Your task to perform on an android device: turn on the 12-hour format for clock Image 0: 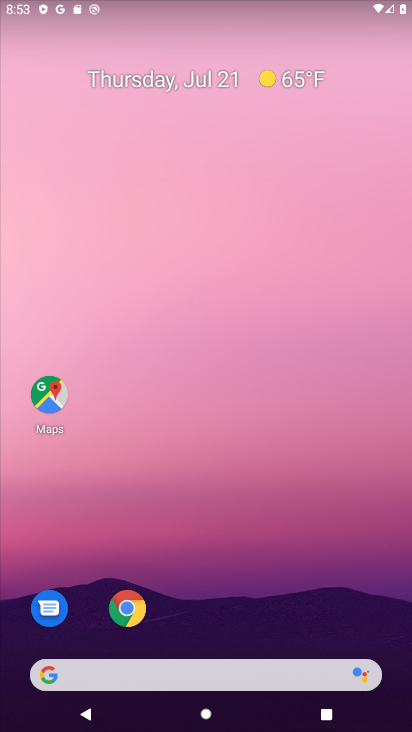
Step 0: drag from (233, 525) to (257, 211)
Your task to perform on an android device: turn on the 12-hour format for clock Image 1: 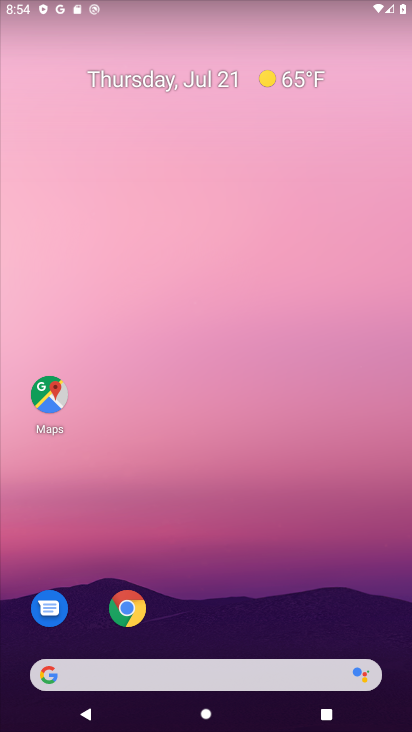
Step 1: drag from (205, 573) to (131, 220)
Your task to perform on an android device: turn on the 12-hour format for clock Image 2: 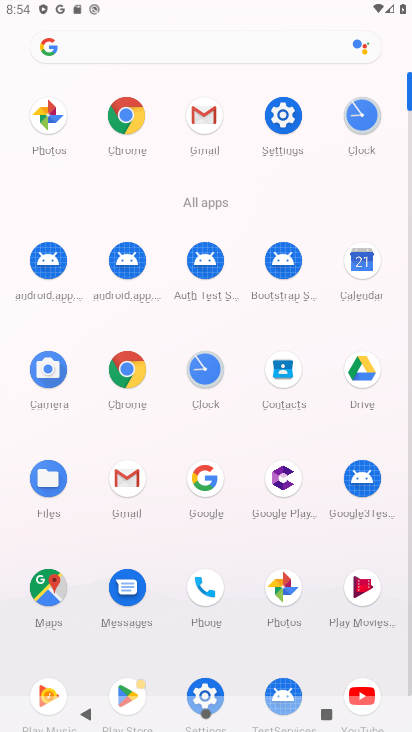
Step 2: click (358, 114)
Your task to perform on an android device: turn on the 12-hour format for clock Image 3: 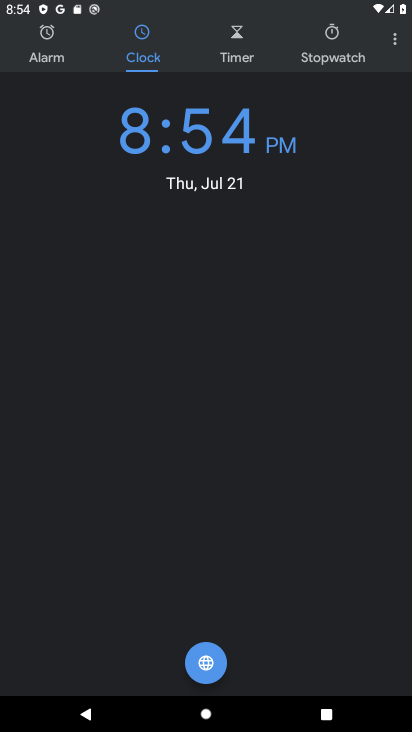
Step 3: click (396, 43)
Your task to perform on an android device: turn on the 12-hour format for clock Image 4: 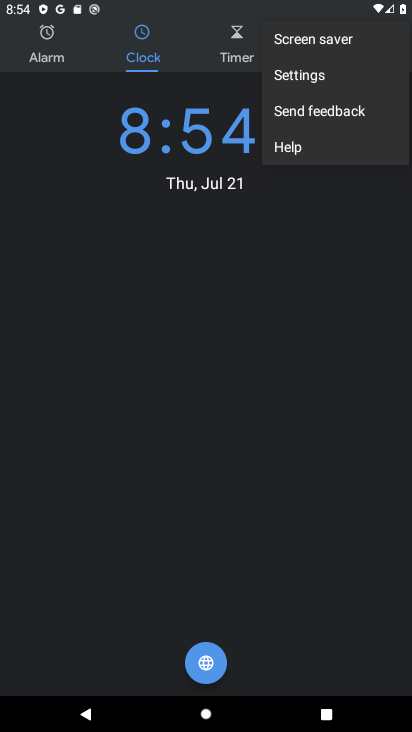
Step 4: click (318, 79)
Your task to perform on an android device: turn on the 12-hour format for clock Image 5: 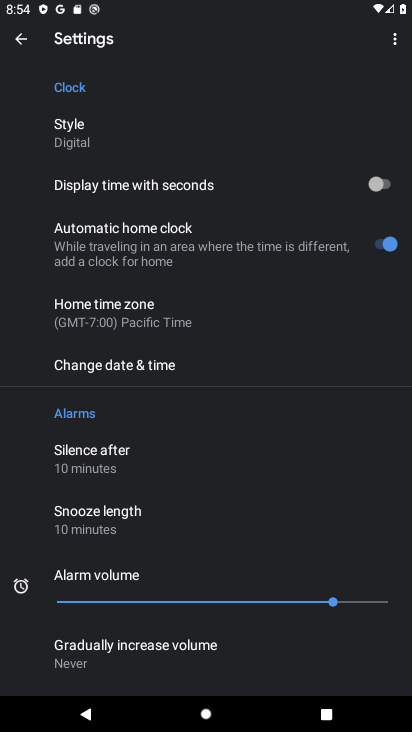
Step 5: drag from (241, 476) to (233, 329)
Your task to perform on an android device: turn on the 12-hour format for clock Image 6: 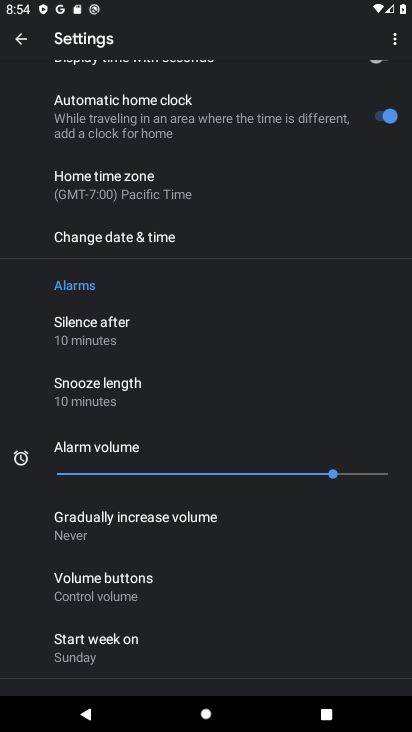
Step 6: drag from (261, 555) to (221, 408)
Your task to perform on an android device: turn on the 12-hour format for clock Image 7: 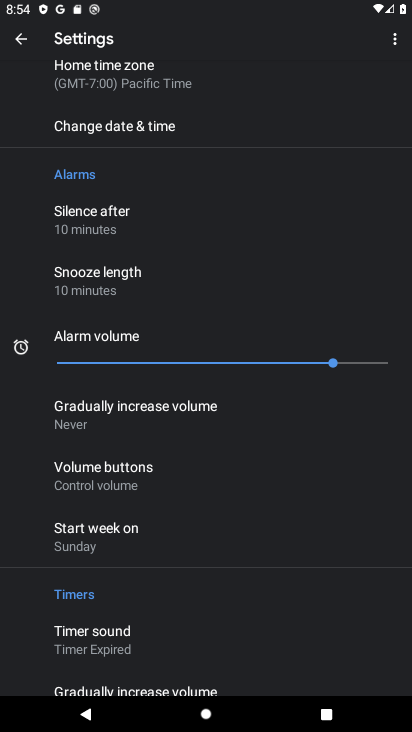
Step 7: drag from (247, 539) to (224, 414)
Your task to perform on an android device: turn on the 12-hour format for clock Image 8: 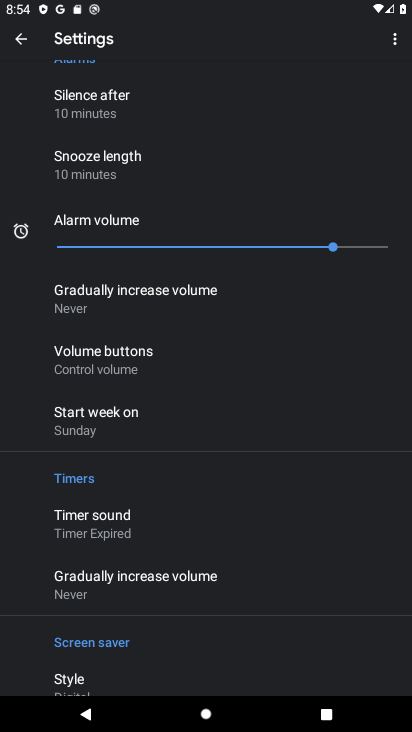
Step 8: drag from (288, 542) to (186, 214)
Your task to perform on an android device: turn on the 12-hour format for clock Image 9: 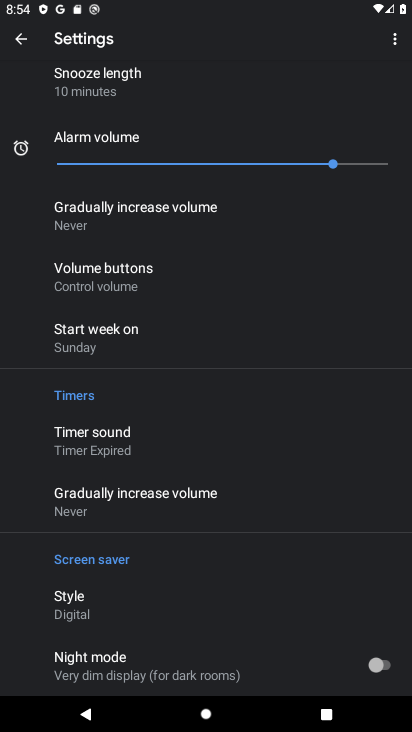
Step 9: drag from (223, 493) to (244, 252)
Your task to perform on an android device: turn on the 12-hour format for clock Image 10: 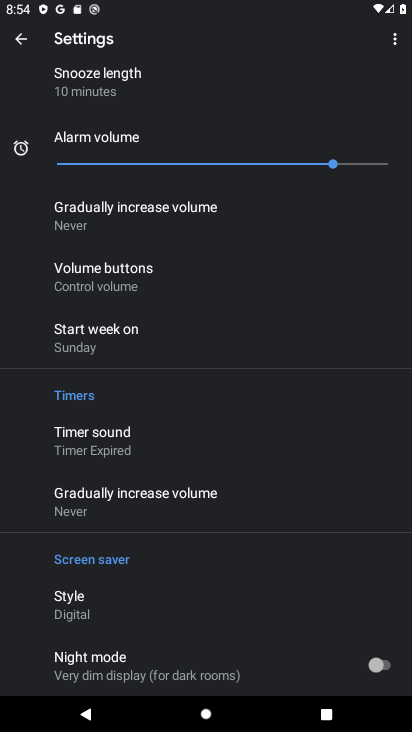
Step 10: drag from (244, 248) to (410, 592)
Your task to perform on an android device: turn on the 12-hour format for clock Image 11: 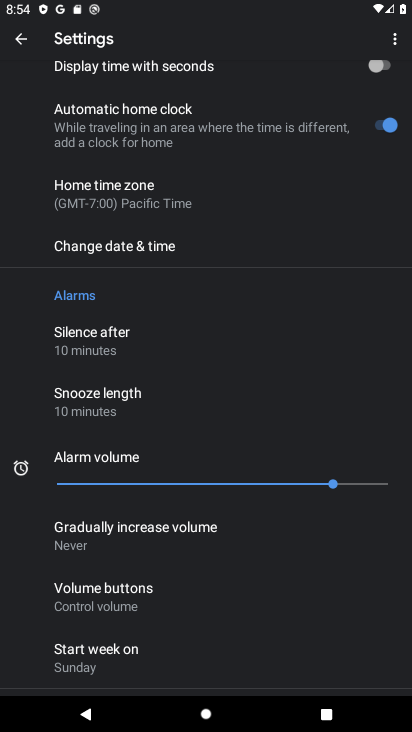
Step 11: drag from (207, 165) to (227, 283)
Your task to perform on an android device: turn on the 12-hour format for clock Image 12: 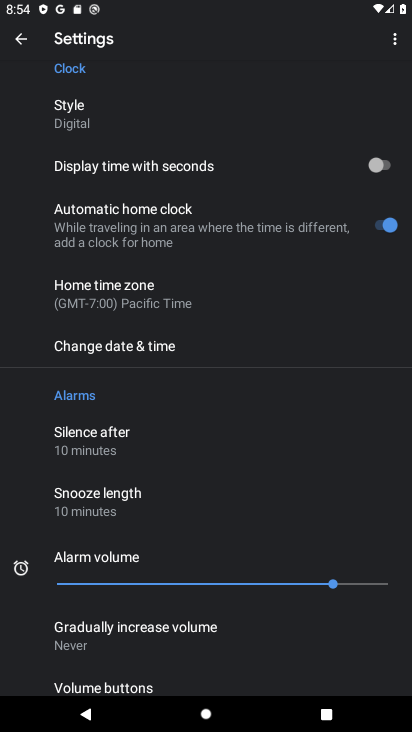
Step 12: drag from (239, 207) to (255, 289)
Your task to perform on an android device: turn on the 12-hour format for clock Image 13: 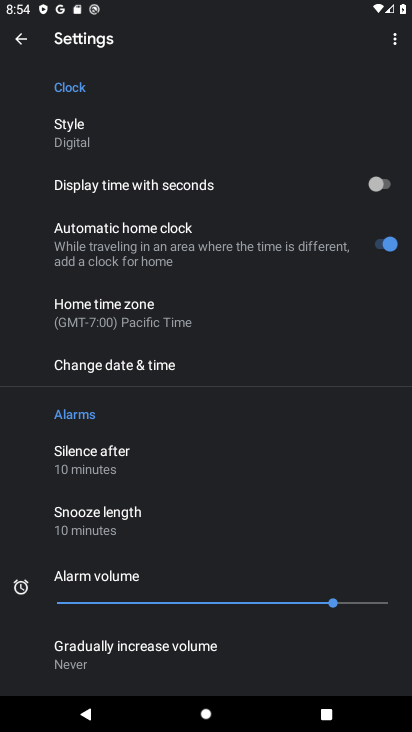
Step 13: click (395, 36)
Your task to perform on an android device: turn on the 12-hour format for clock Image 14: 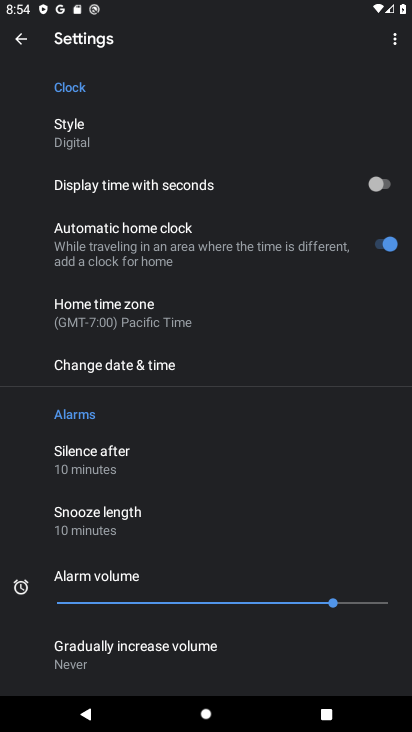
Step 14: click (396, 42)
Your task to perform on an android device: turn on the 12-hour format for clock Image 15: 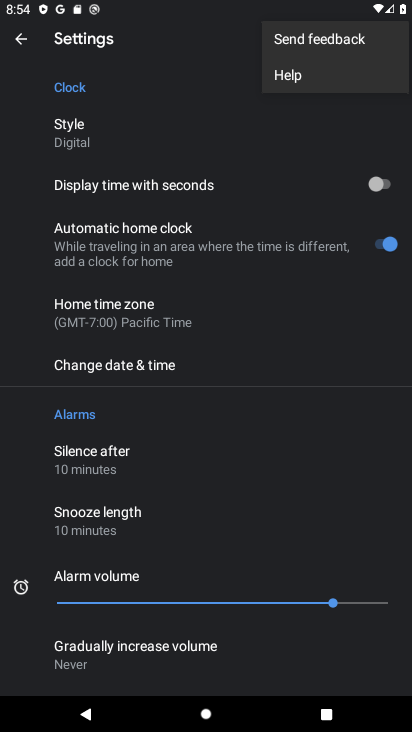
Step 15: click (311, 118)
Your task to perform on an android device: turn on the 12-hour format for clock Image 16: 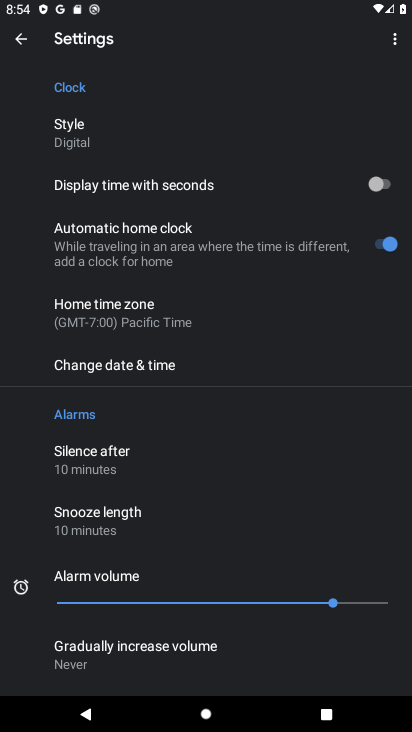
Step 16: click (396, 41)
Your task to perform on an android device: turn on the 12-hour format for clock Image 17: 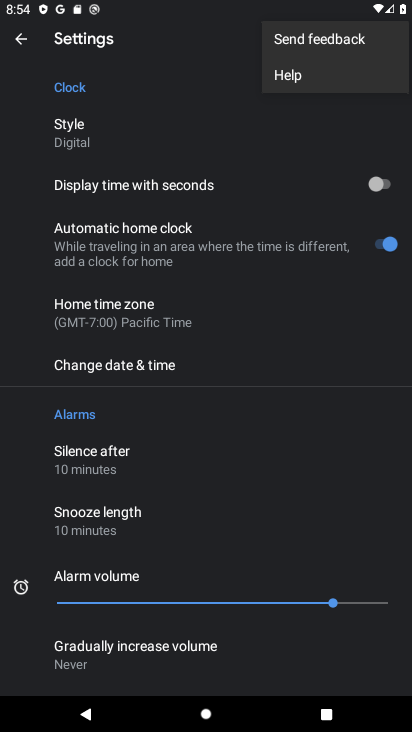
Step 17: click (269, 137)
Your task to perform on an android device: turn on the 12-hour format for clock Image 18: 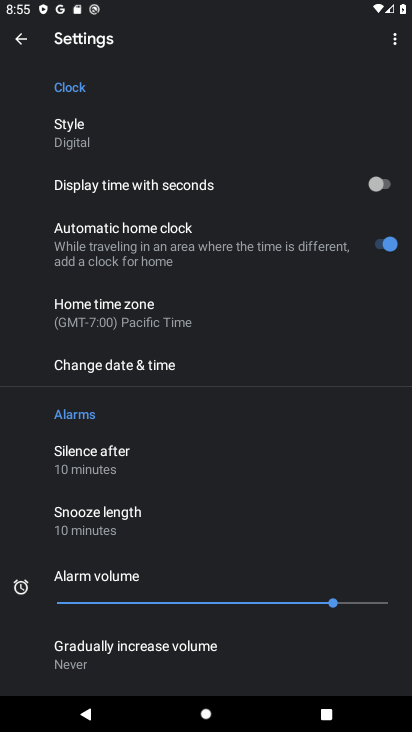
Step 18: task complete